Your task to perform on an android device: install app "Paramount+ | Peak Streaming" Image 0: 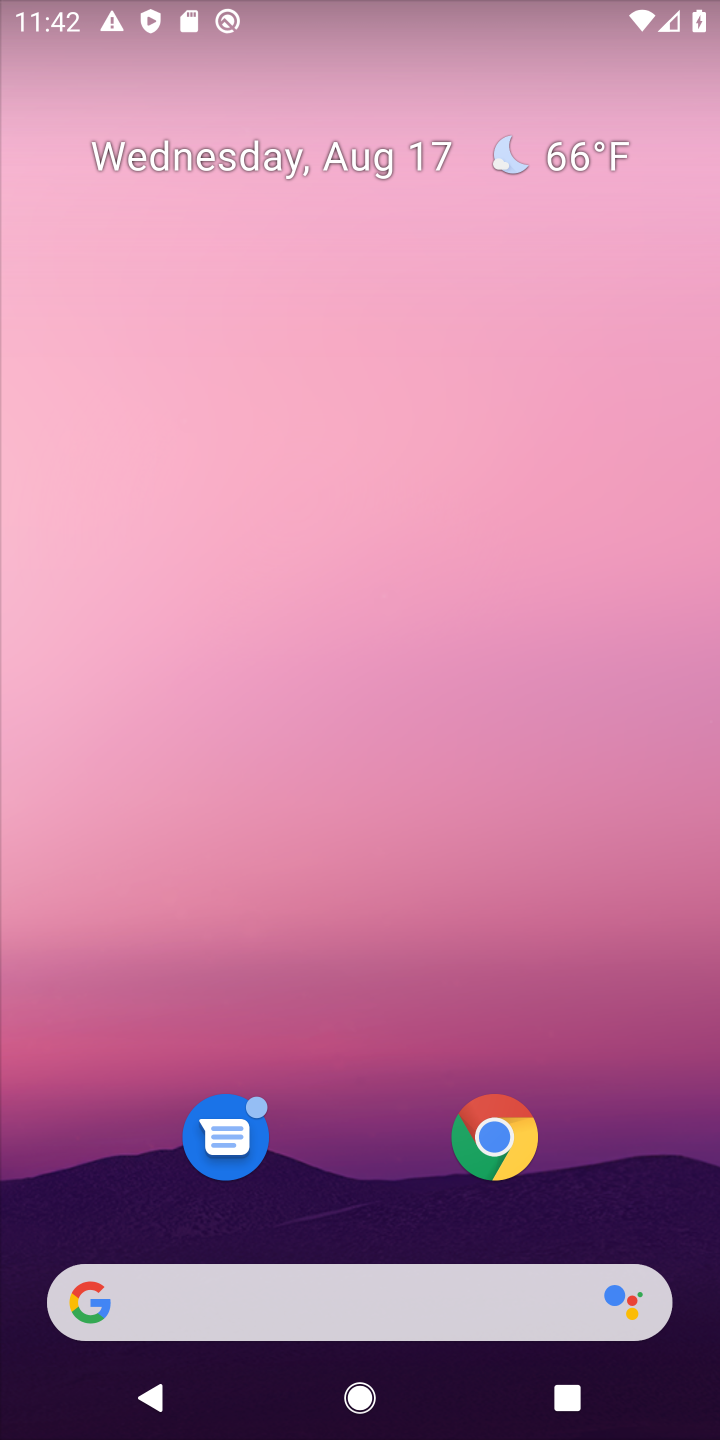
Step 0: click (410, 177)
Your task to perform on an android device: install app "Paramount+ | Peak Streaming" Image 1: 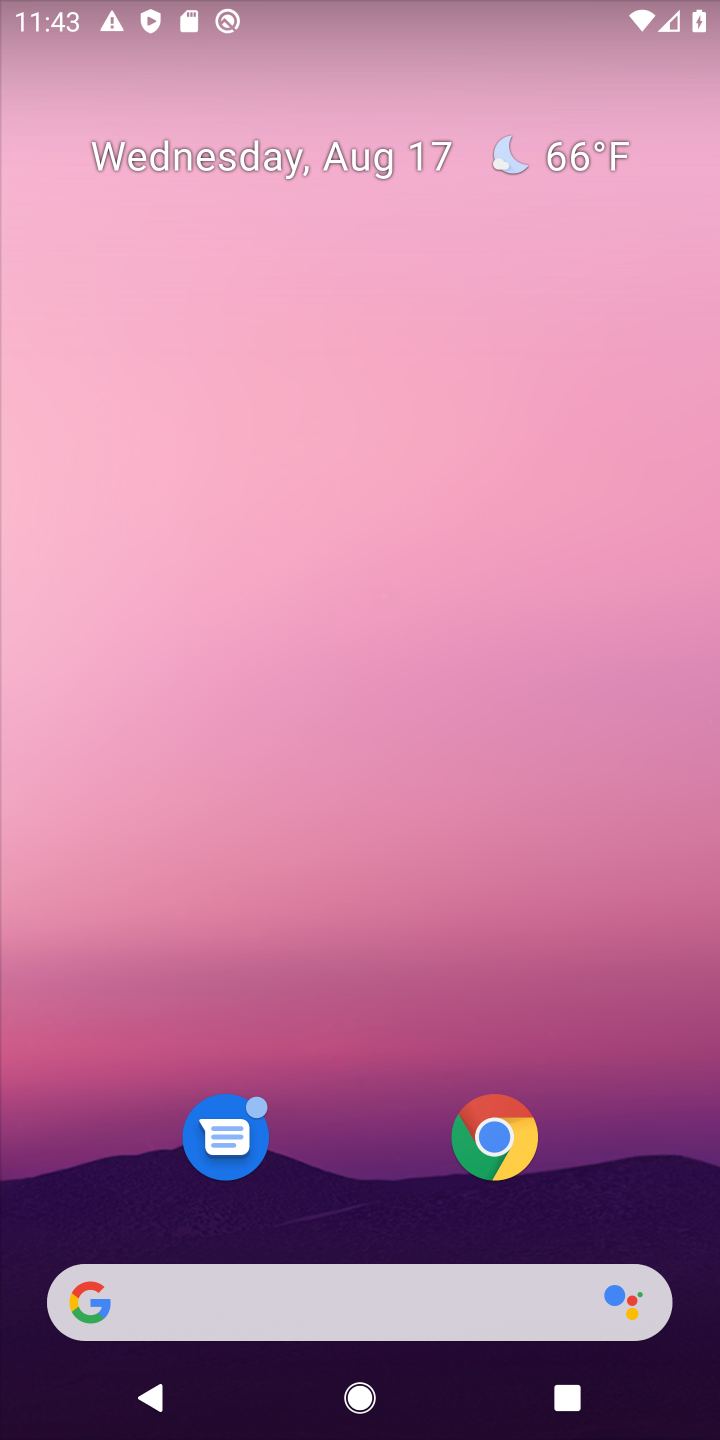
Step 1: drag from (251, 1235) to (430, 220)
Your task to perform on an android device: install app "Paramount+ | Peak Streaming" Image 2: 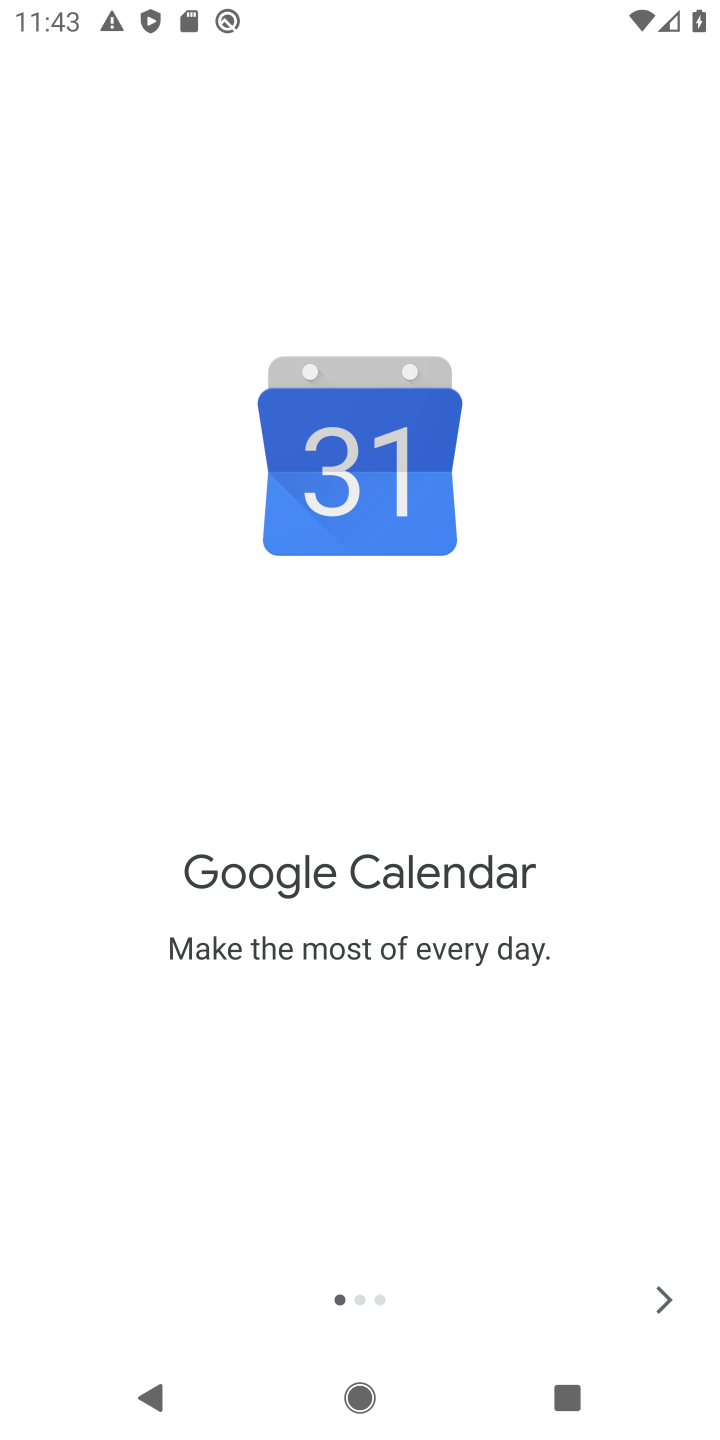
Step 2: click (663, 1292)
Your task to perform on an android device: install app "Paramount+ | Peak Streaming" Image 3: 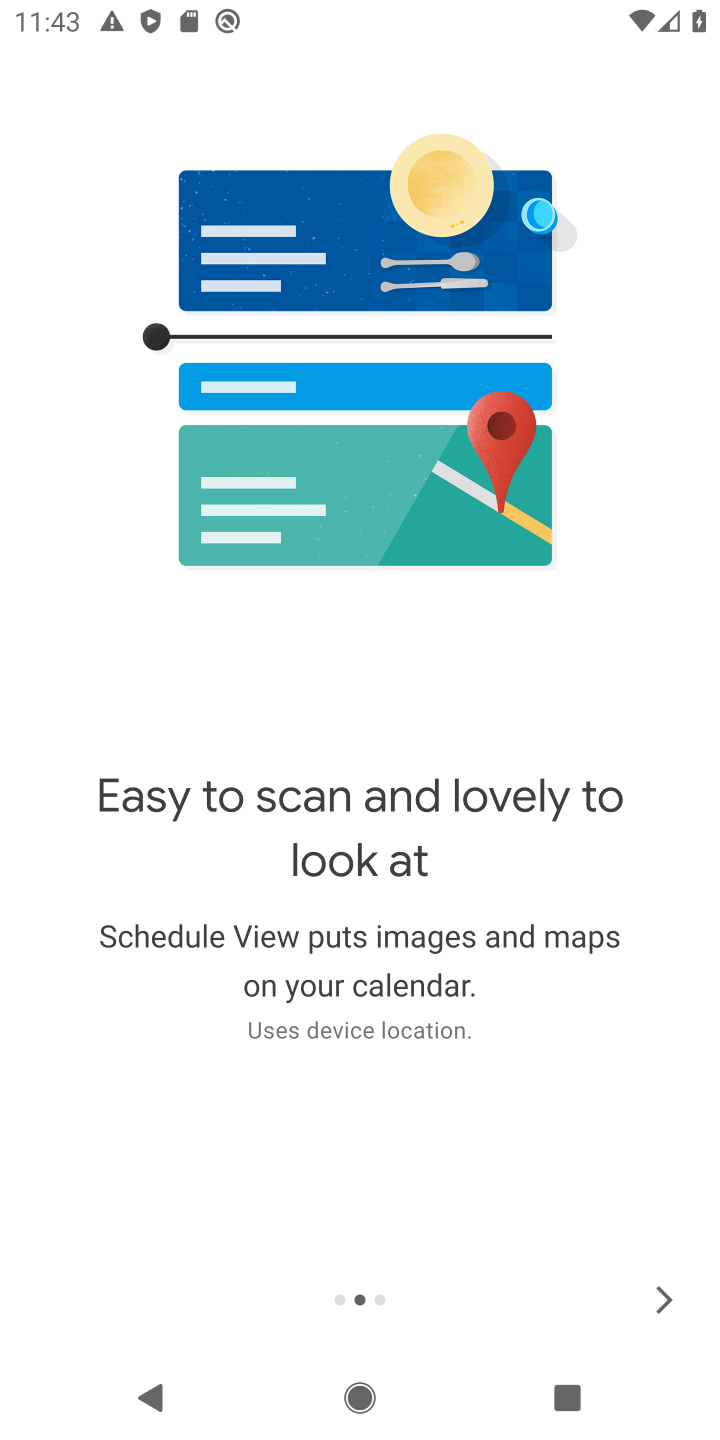
Step 3: click (636, 1280)
Your task to perform on an android device: install app "Paramount+ | Peak Streaming" Image 4: 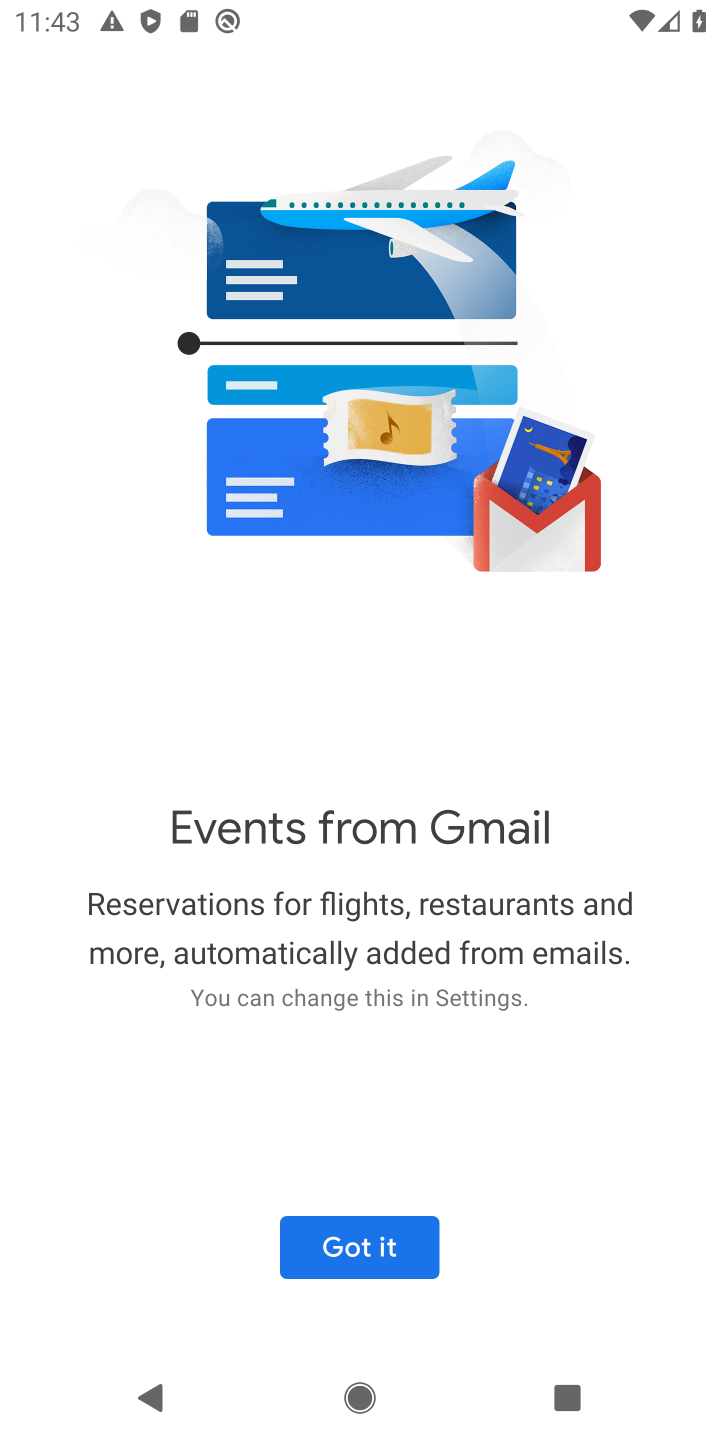
Step 4: press home button
Your task to perform on an android device: install app "Paramount+ | Peak Streaming" Image 5: 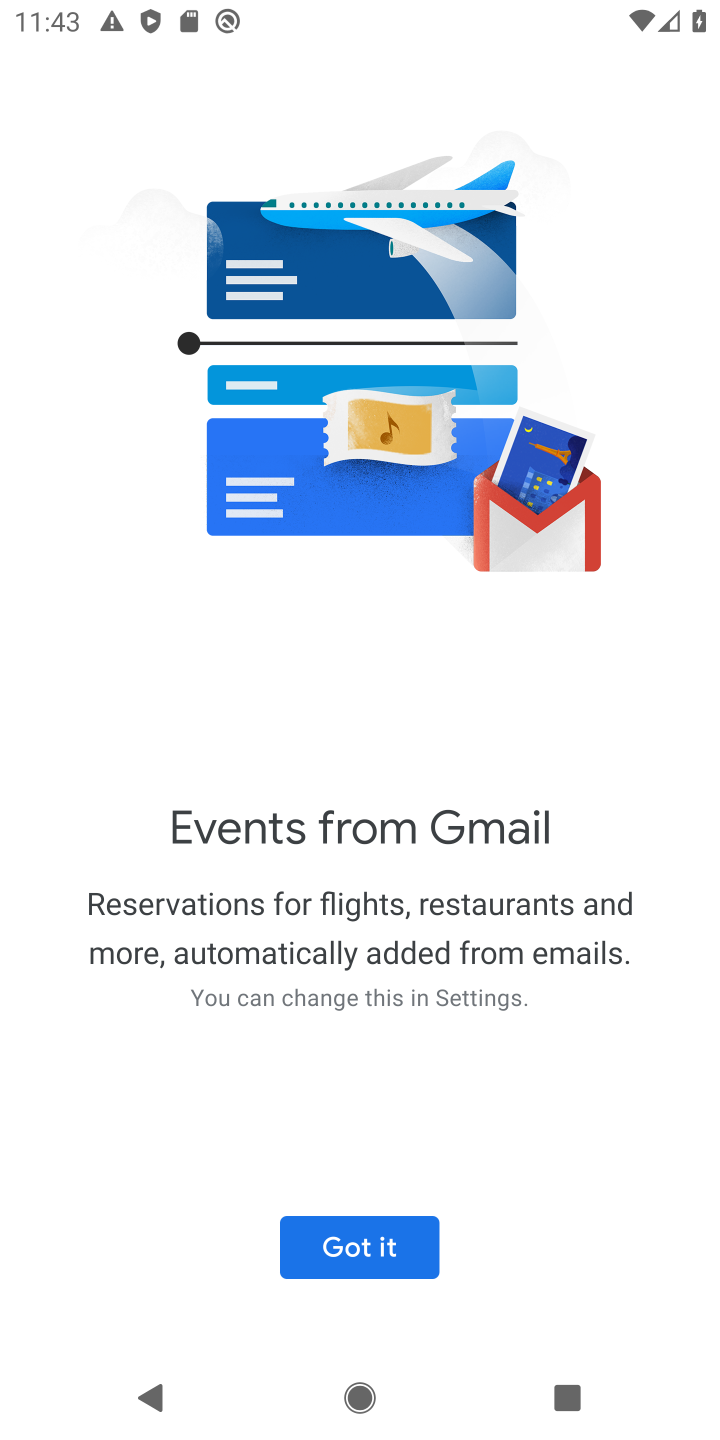
Step 5: press home button
Your task to perform on an android device: install app "Paramount+ | Peak Streaming" Image 6: 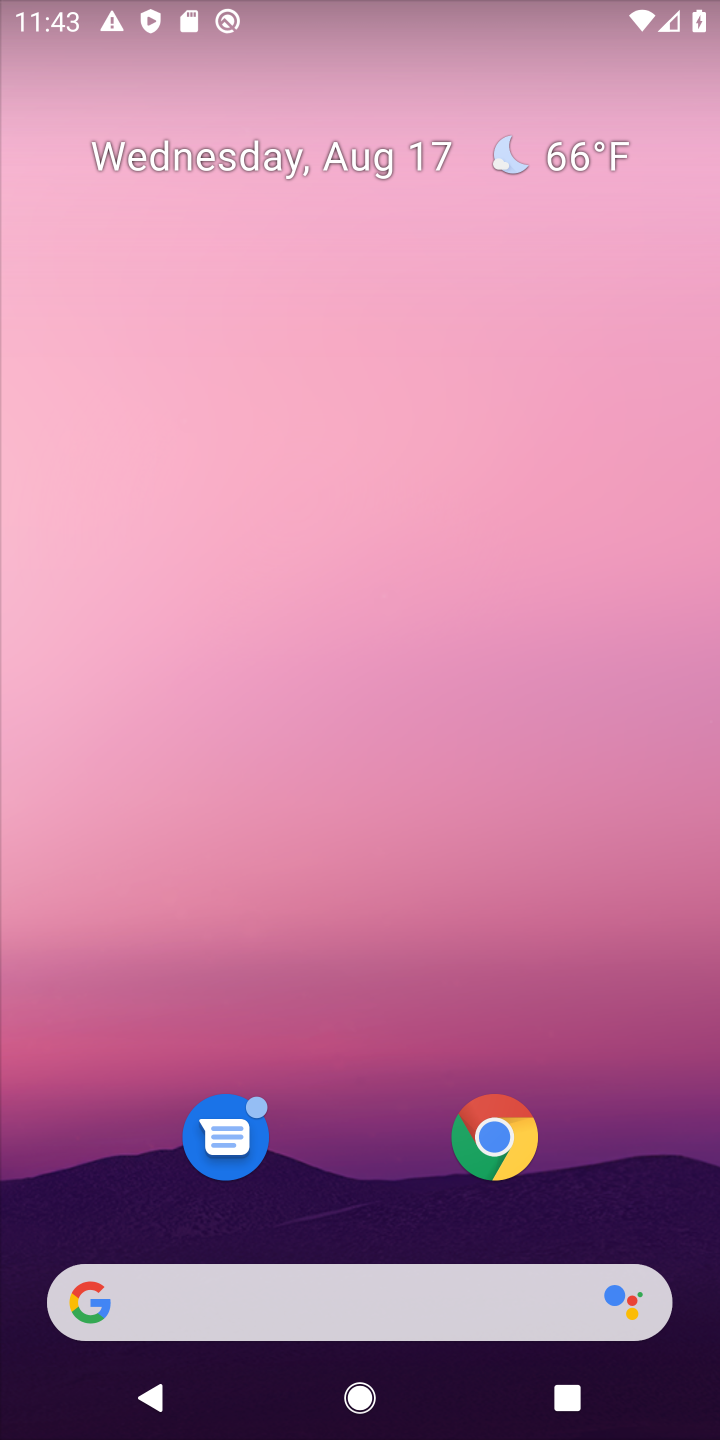
Step 6: press home button
Your task to perform on an android device: install app "Paramount+ | Peak Streaming" Image 7: 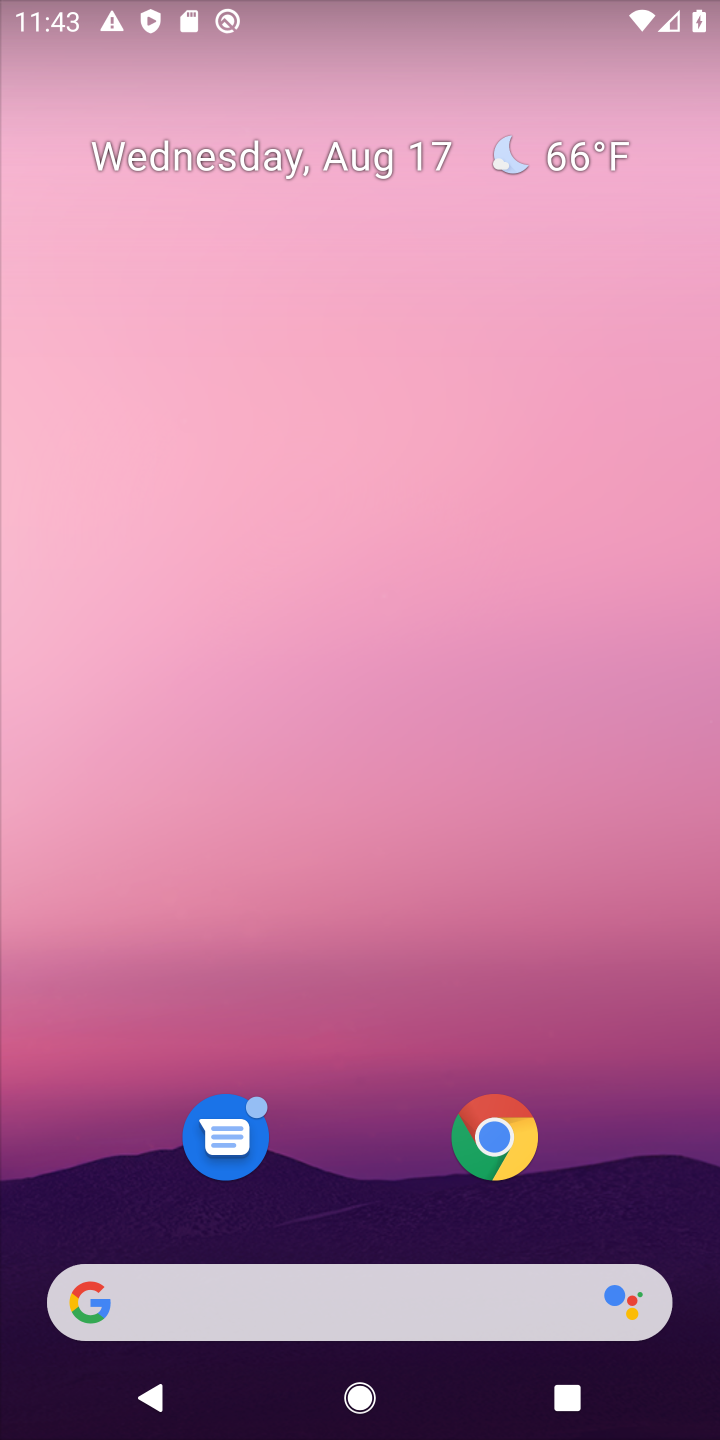
Step 7: drag from (259, 1209) to (295, 426)
Your task to perform on an android device: install app "Paramount+ | Peak Streaming" Image 8: 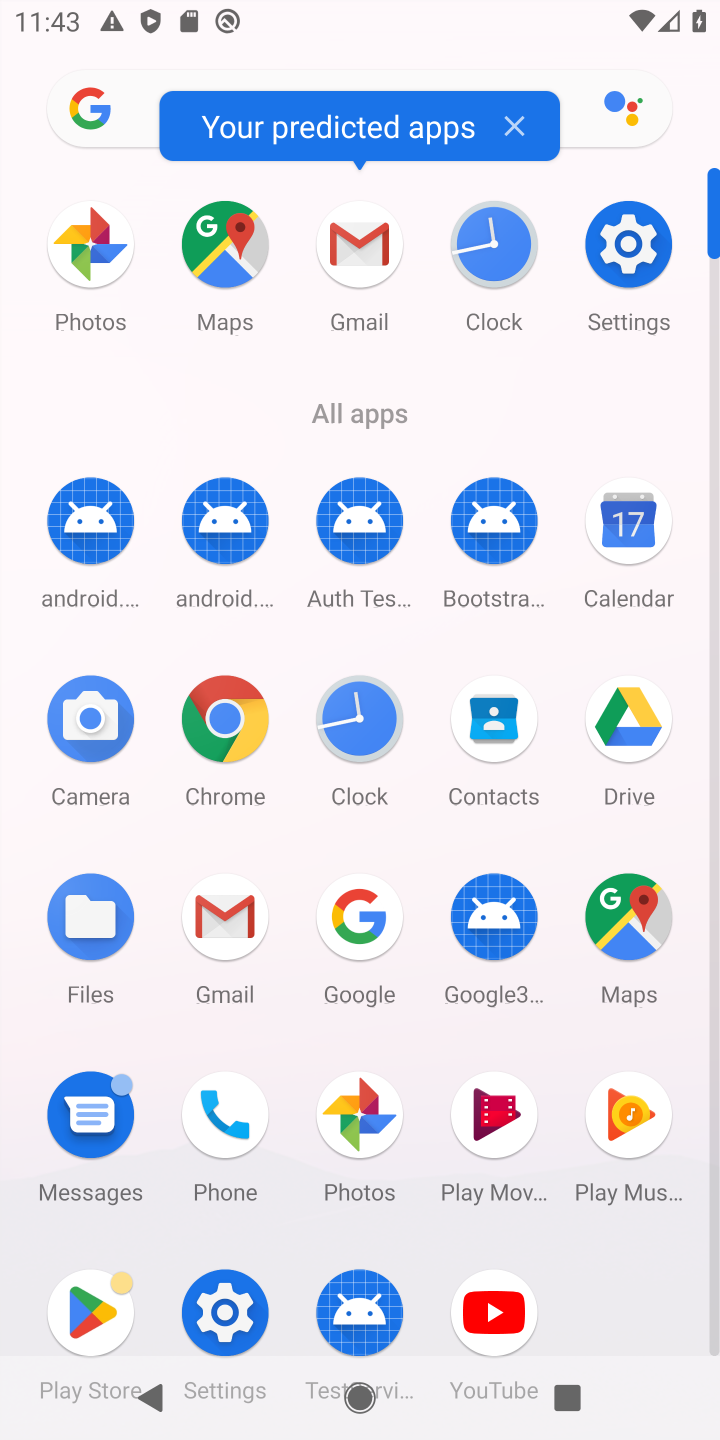
Step 8: click (96, 1292)
Your task to perform on an android device: install app "Paramount+ | Peak Streaming" Image 9: 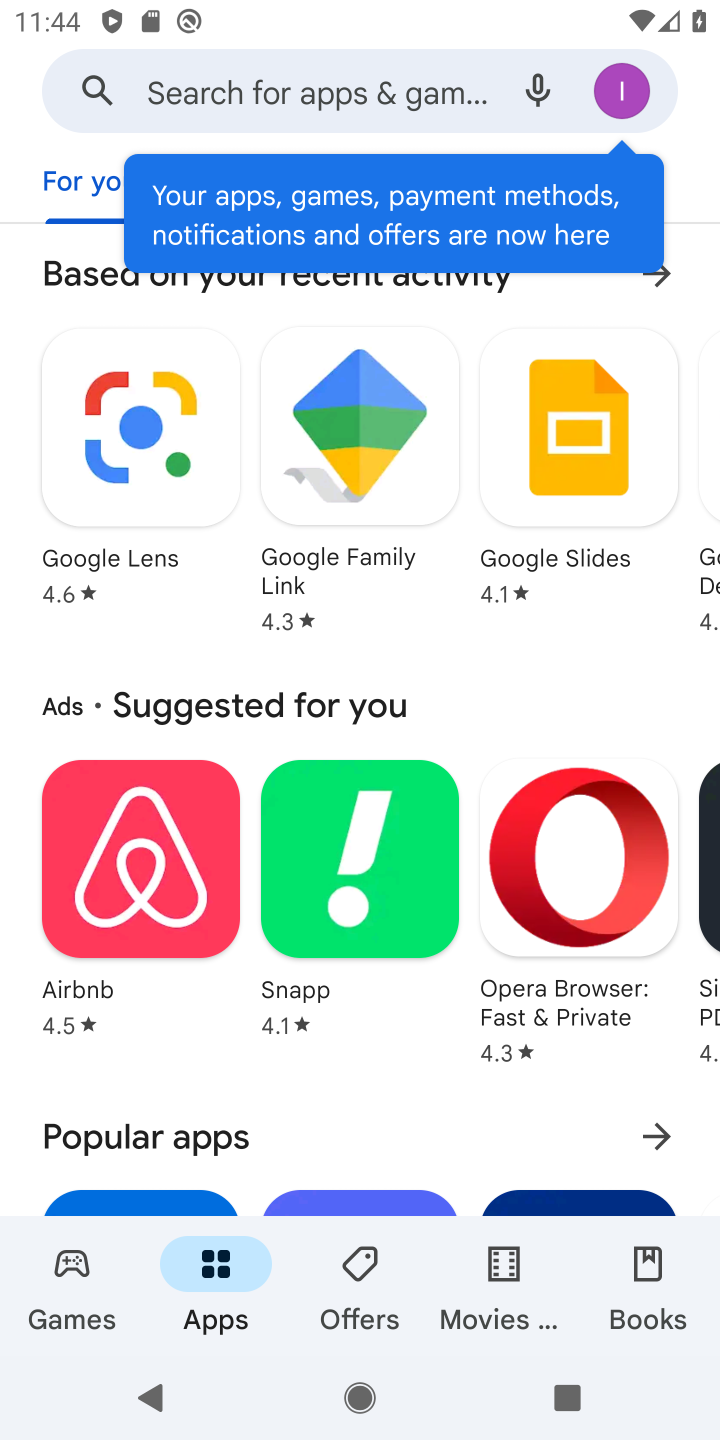
Step 9: click (314, 88)
Your task to perform on an android device: install app "Paramount+ | Peak Streaming" Image 10: 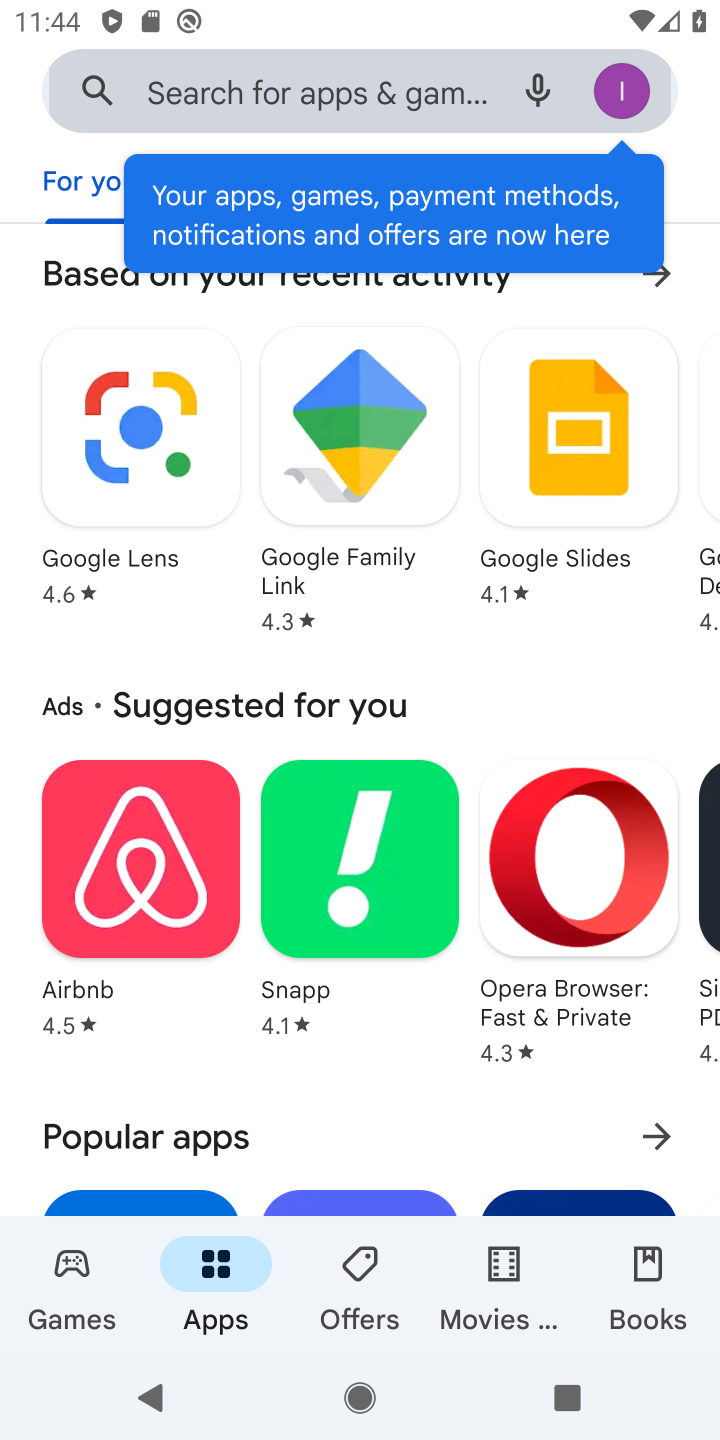
Step 10: type "Paramount "
Your task to perform on an android device: install app "Paramount+ | Peak Streaming" Image 11: 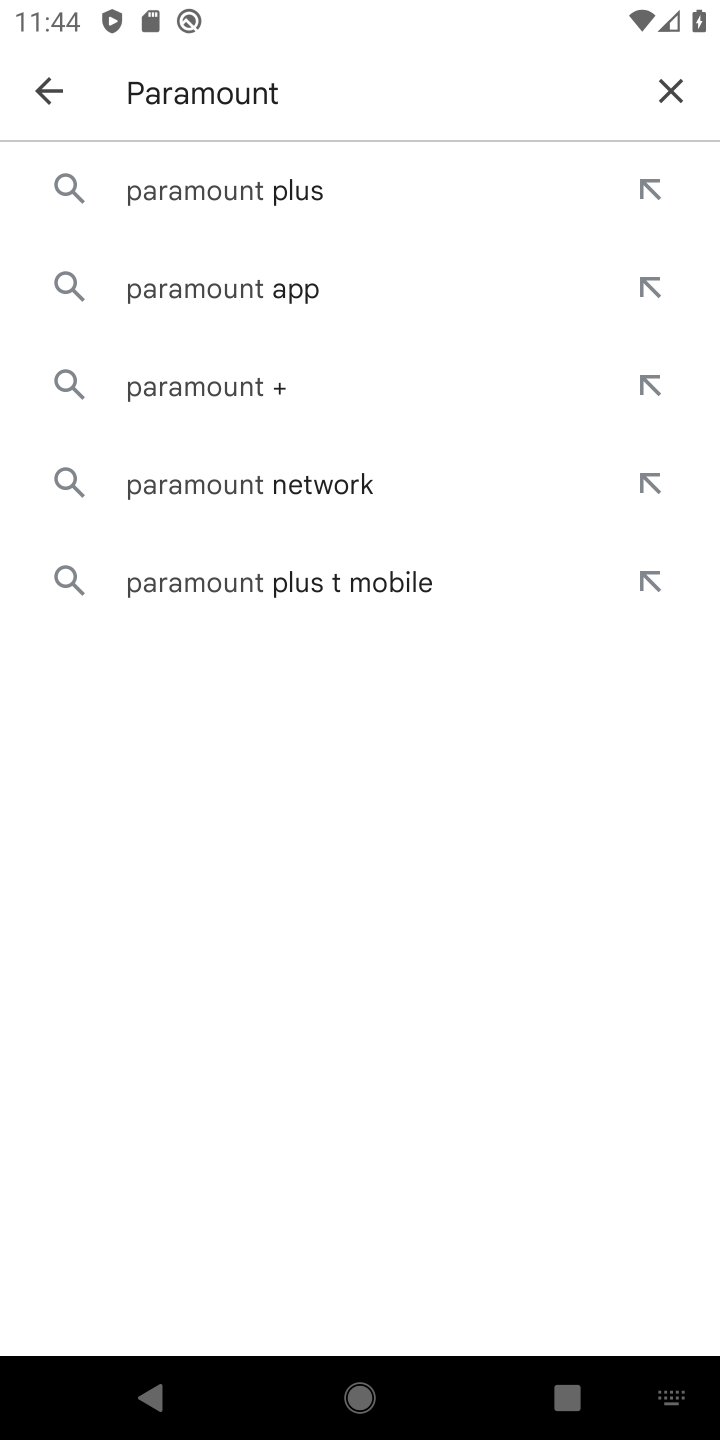
Step 11: click (204, 398)
Your task to perform on an android device: install app "Paramount+ | Peak Streaming" Image 12: 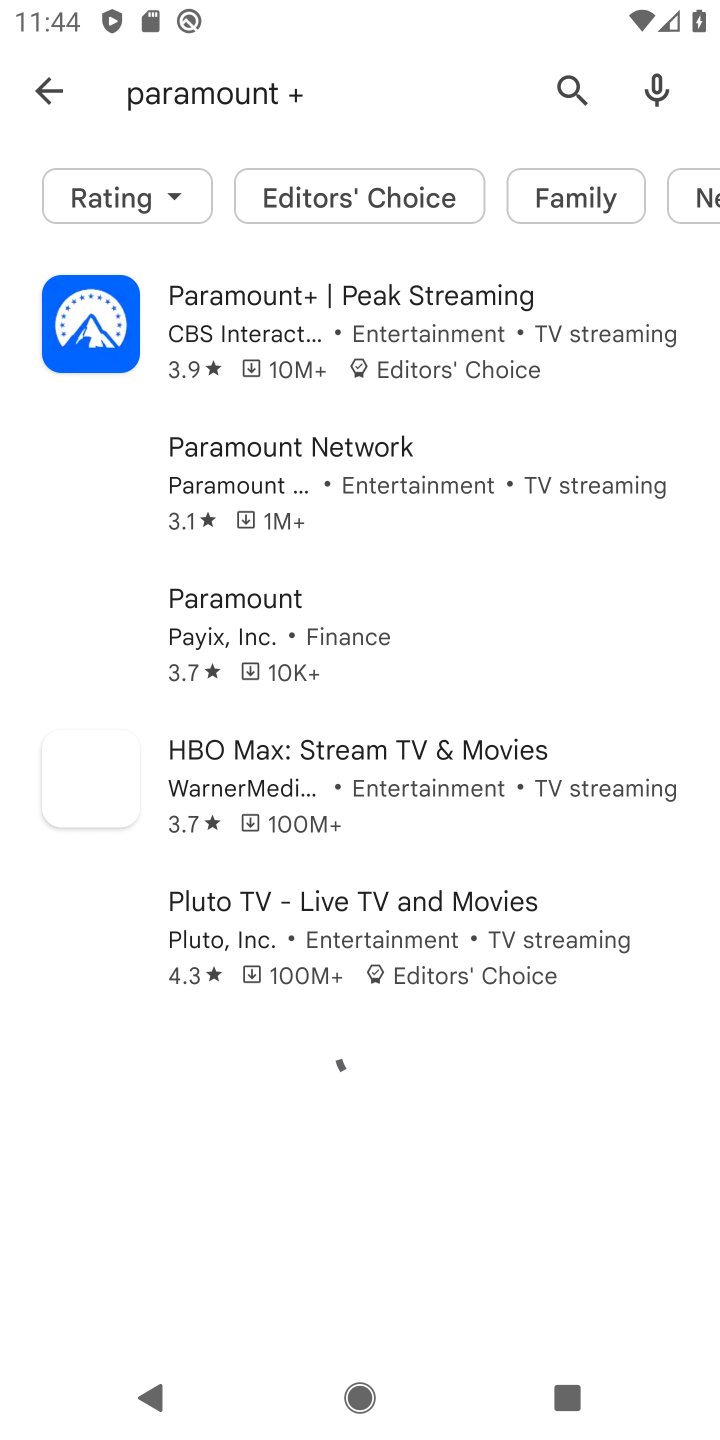
Step 12: click (410, 312)
Your task to perform on an android device: install app "Paramount+ | Peak Streaming" Image 13: 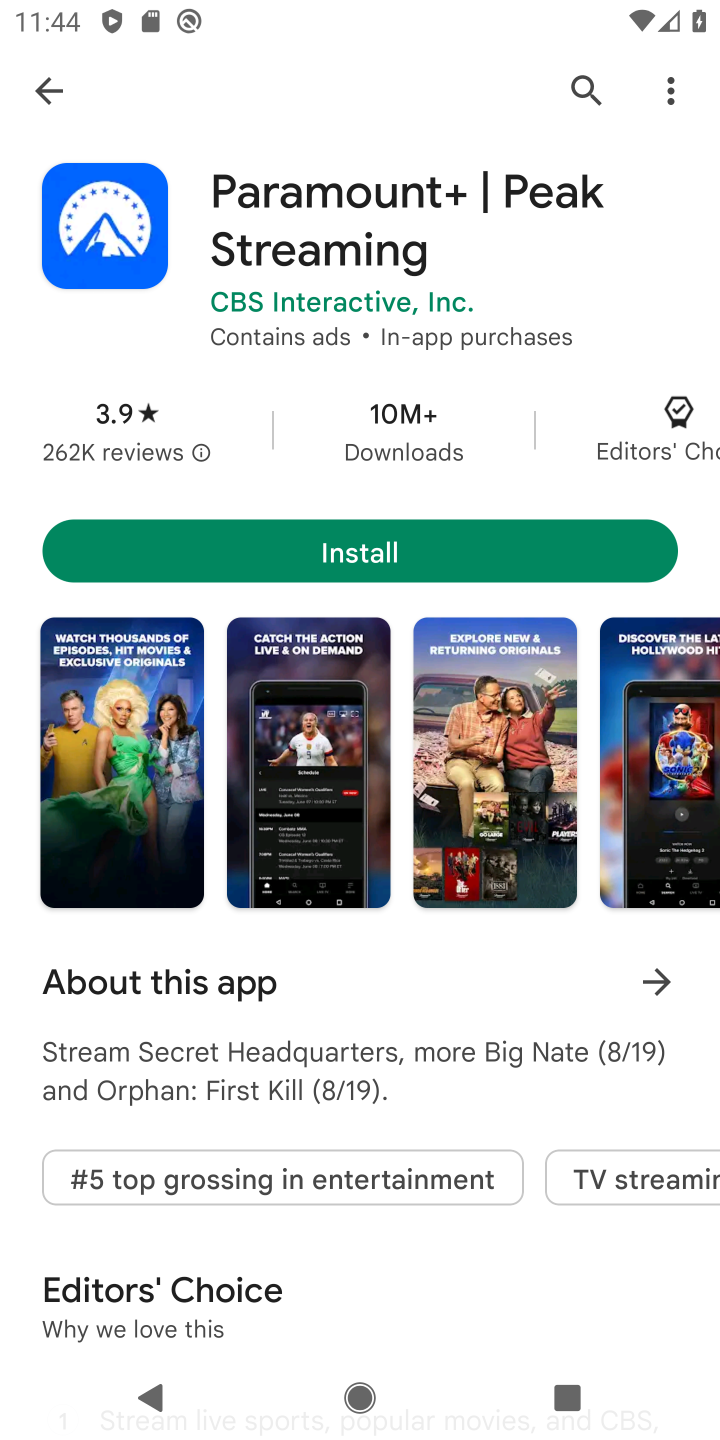
Step 13: click (414, 544)
Your task to perform on an android device: install app "Paramount+ | Peak Streaming" Image 14: 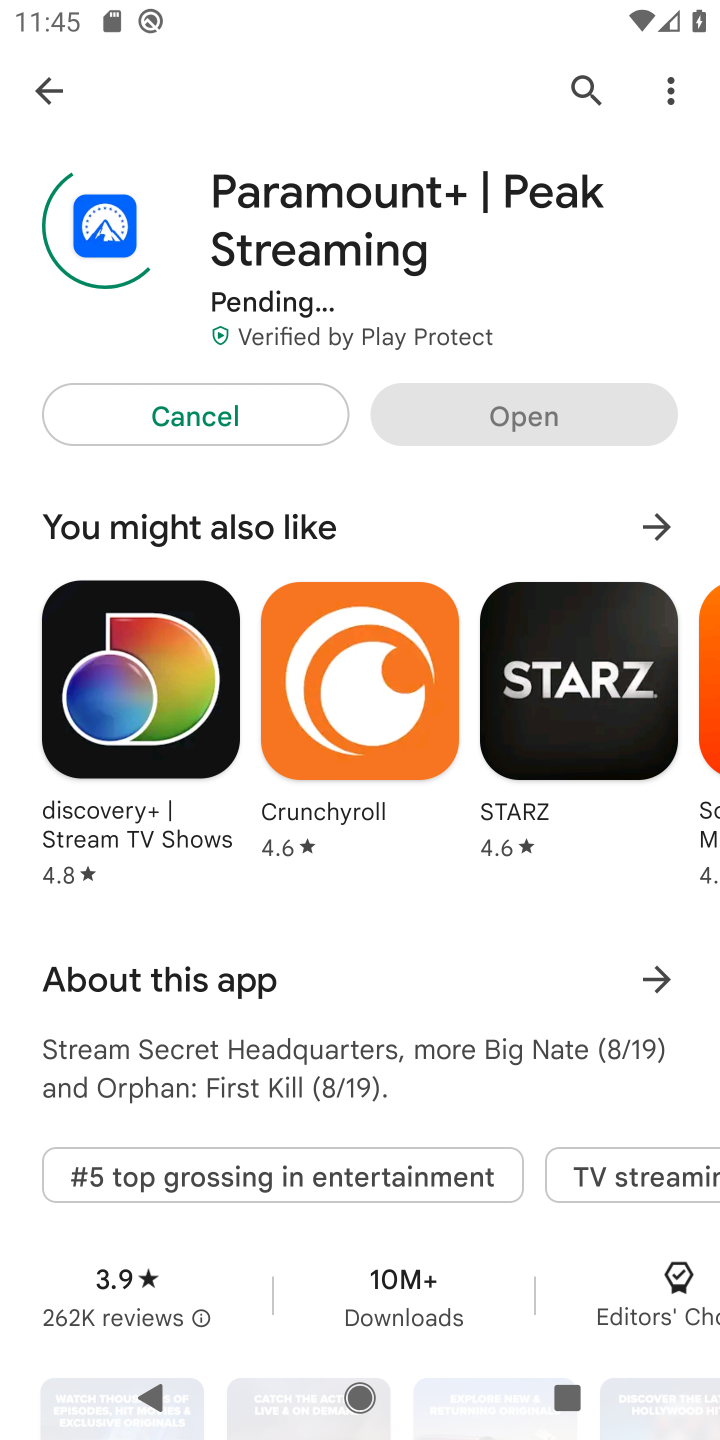
Step 14: task complete